Your task to perform on an android device: allow notifications from all sites in the chrome app Image 0: 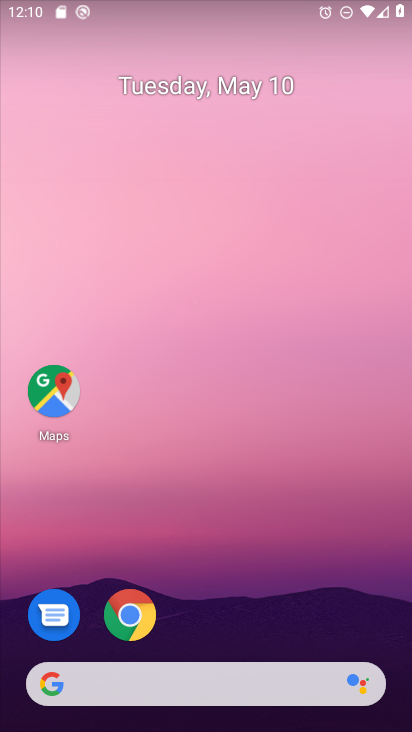
Step 0: drag from (237, 713) to (348, 261)
Your task to perform on an android device: allow notifications from all sites in the chrome app Image 1: 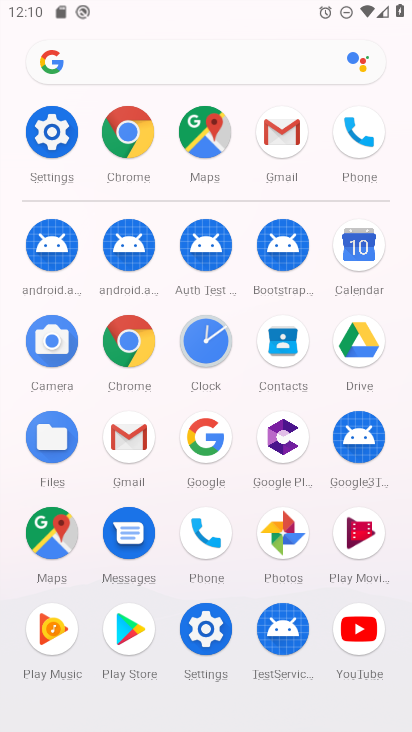
Step 1: click (143, 340)
Your task to perform on an android device: allow notifications from all sites in the chrome app Image 2: 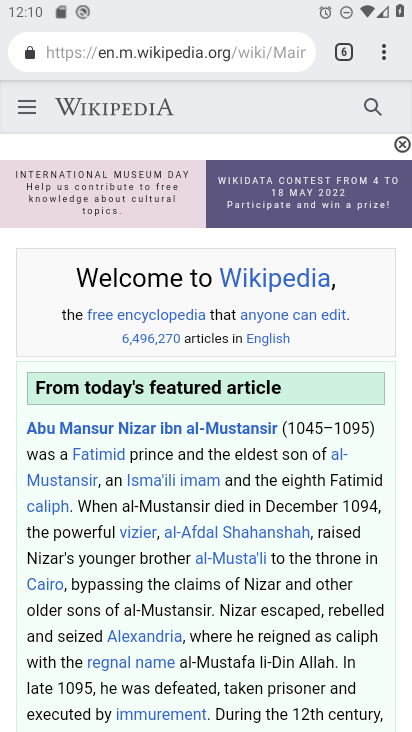
Step 2: click (379, 56)
Your task to perform on an android device: allow notifications from all sites in the chrome app Image 3: 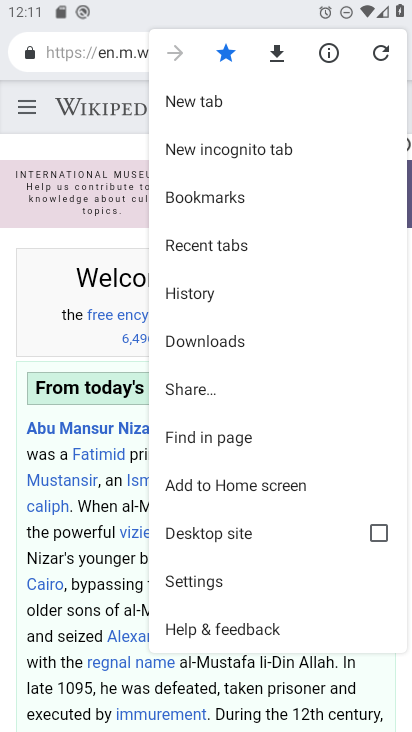
Step 3: click (188, 575)
Your task to perform on an android device: allow notifications from all sites in the chrome app Image 4: 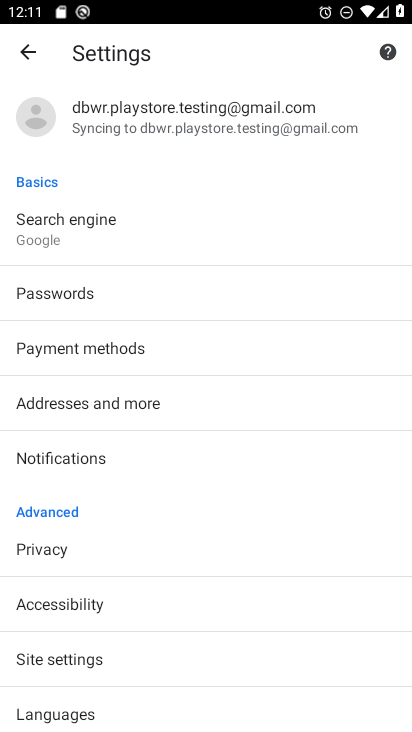
Step 4: click (95, 667)
Your task to perform on an android device: allow notifications from all sites in the chrome app Image 5: 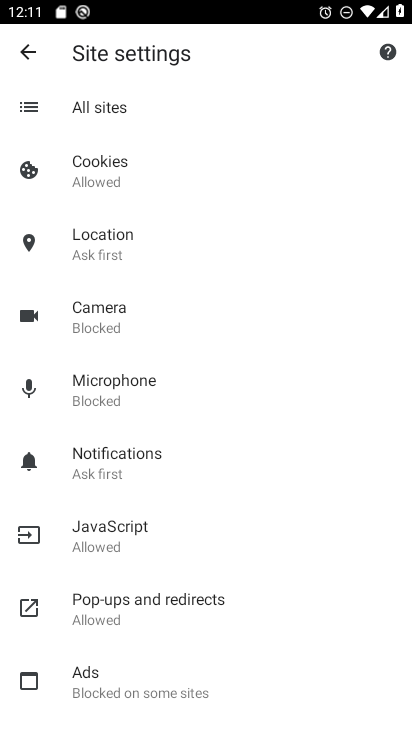
Step 5: click (147, 455)
Your task to perform on an android device: allow notifications from all sites in the chrome app Image 6: 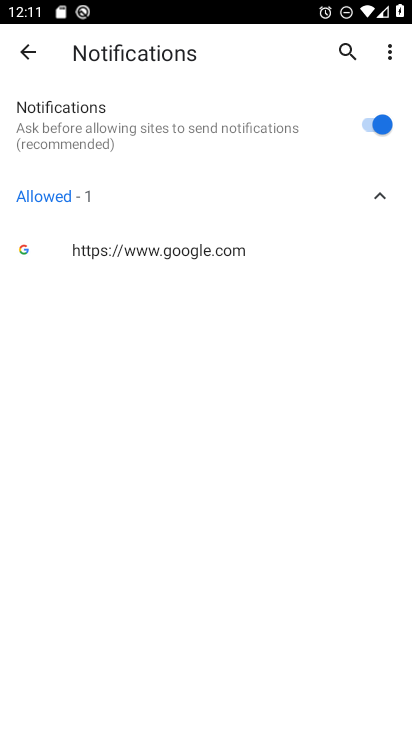
Step 6: click (363, 126)
Your task to perform on an android device: allow notifications from all sites in the chrome app Image 7: 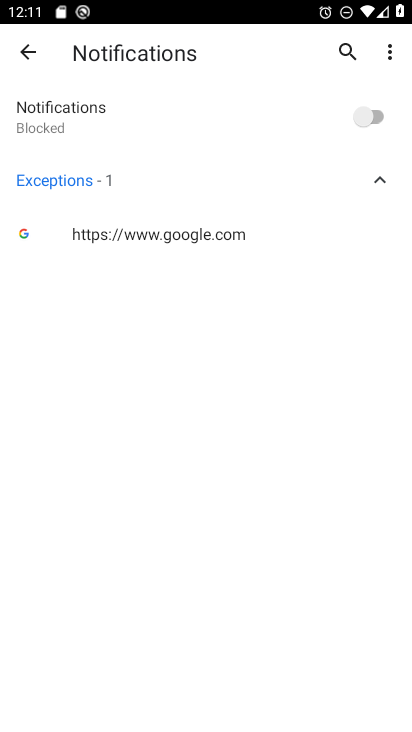
Step 7: click (355, 126)
Your task to perform on an android device: allow notifications from all sites in the chrome app Image 8: 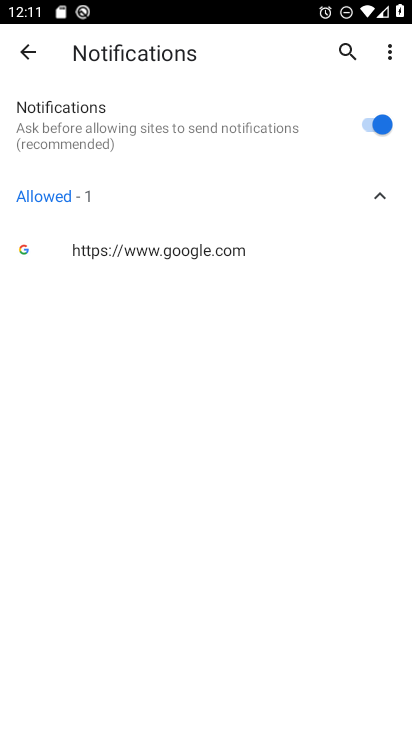
Step 8: task complete